Your task to perform on an android device: Do I have any events this weekend? Image 0: 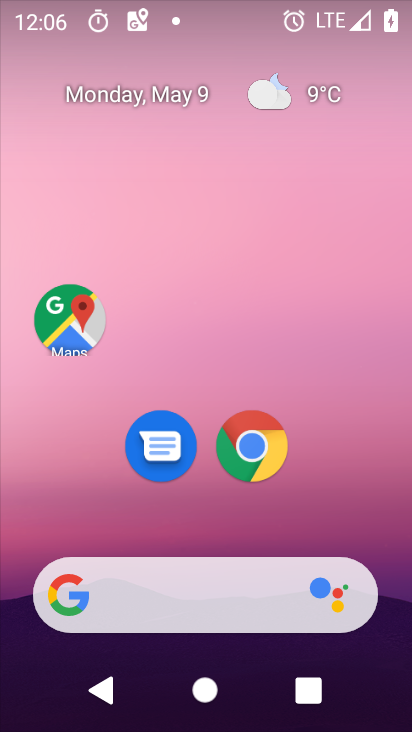
Step 0: drag from (367, 553) to (376, 11)
Your task to perform on an android device: Do I have any events this weekend? Image 1: 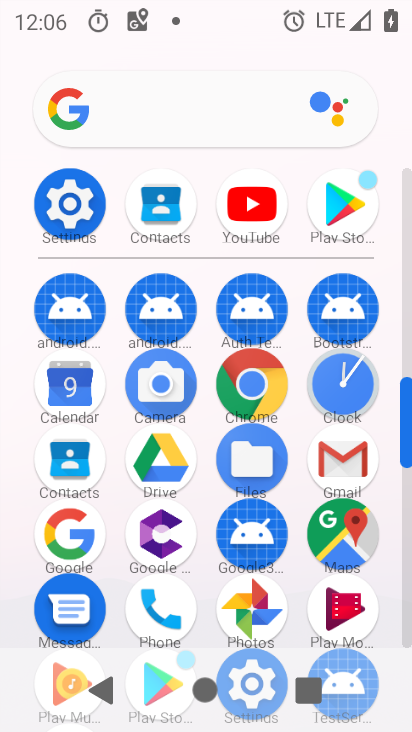
Step 1: click (73, 388)
Your task to perform on an android device: Do I have any events this weekend? Image 2: 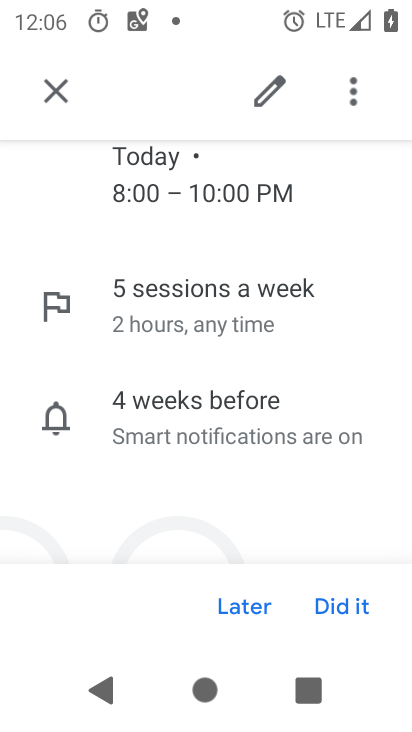
Step 2: click (52, 100)
Your task to perform on an android device: Do I have any events this weekend? Image 3: 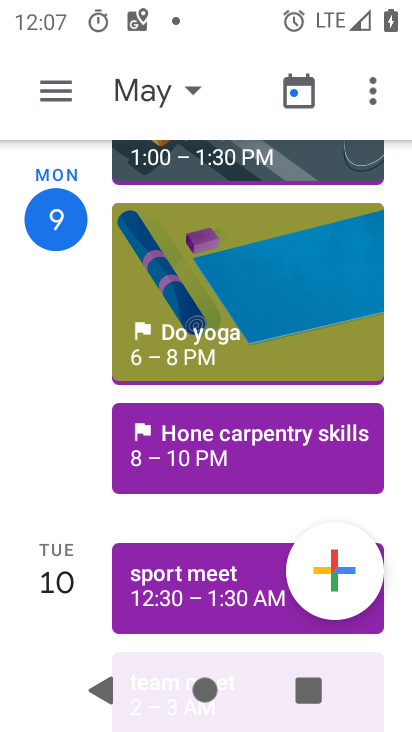
Step 3: click (191, 93)
Your task to perform on an android device: Do I have any events this weekend? Image 4: 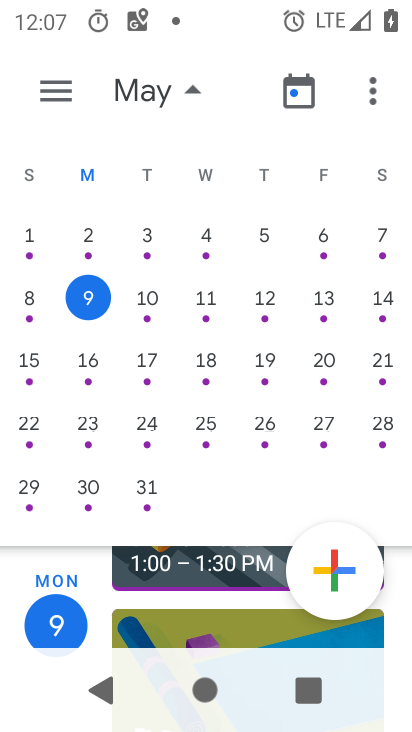
Step 4: click (57, 96)
Your task to perform on an android device: Do I have any events this weekend? Image 5: 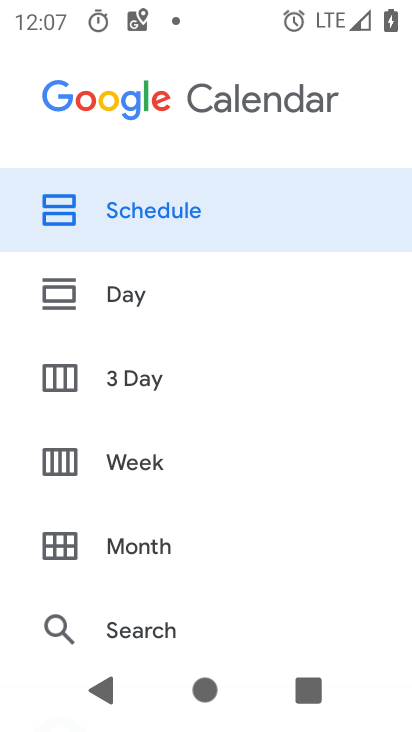
Step 5: click (130, 459)
Your task to perform on an android device: Do I have any events this weekend? Image 6: 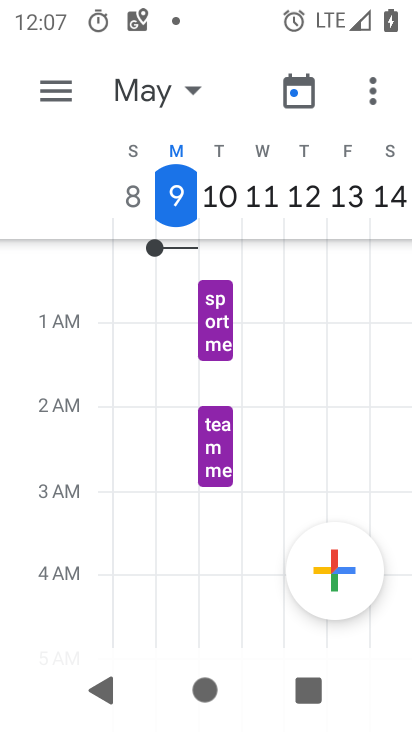
Step 6: drag from (281, 307) to (277, 243)
Your task to perform on an android device: Do I have any events this weekend? Image 7: 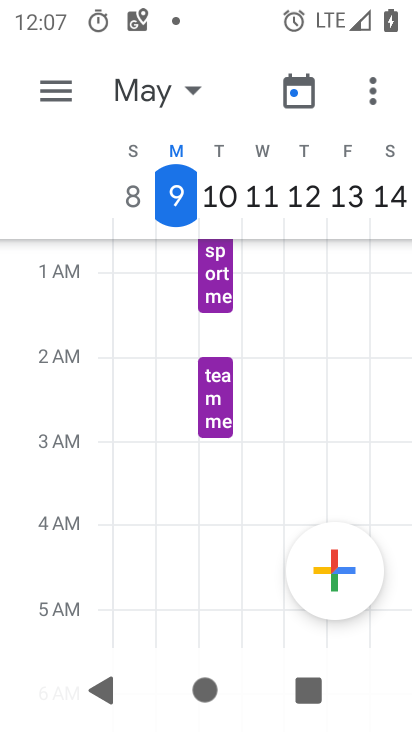
Step 7: drag from (267, 455) to (269, 162)
Your task to perform on an android device: Do I have any events this weekend? Image 8: 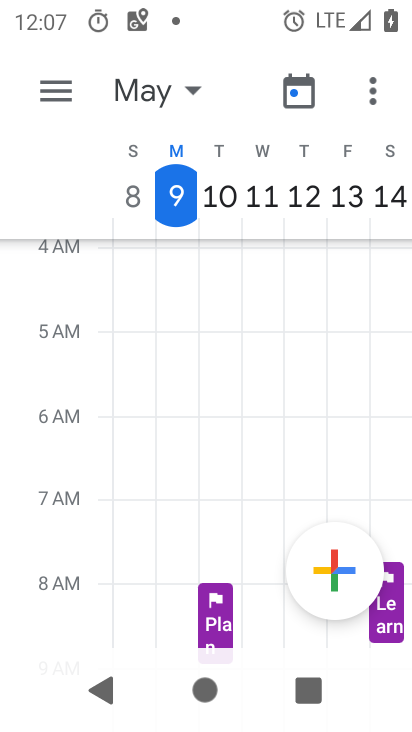
Step 8: drag from (250, 465) to (255, 234)
Your task to perform on an android device: Do I have any events this weekend? Image 9: 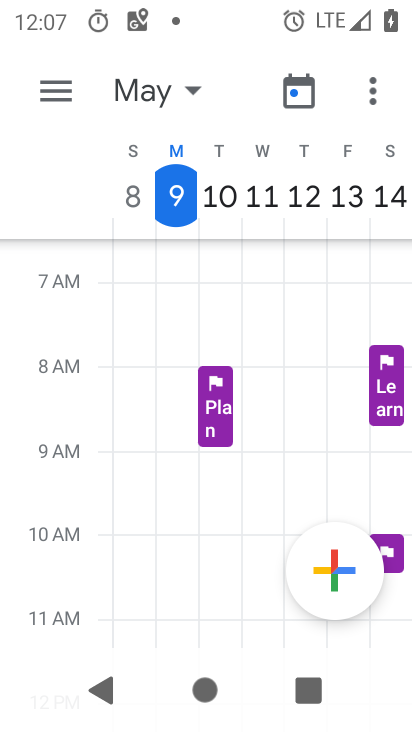
Step 9: click (388, 404)
Your task to perform on an android device: Do I have any events this weekend? Image 10: 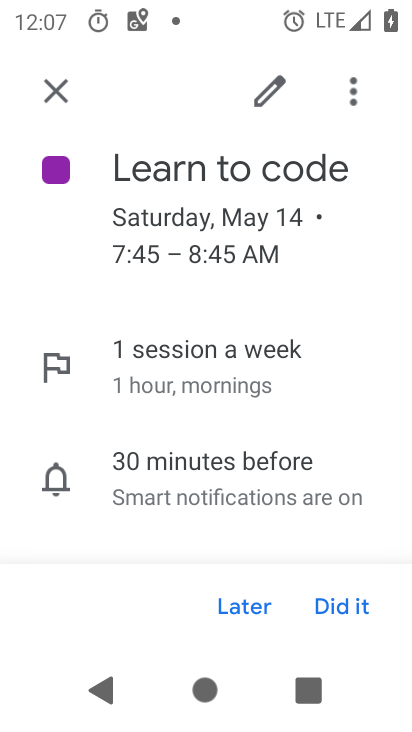
Step 10: task complete